Your task to perform on an android device: Open Android settings Image 0: 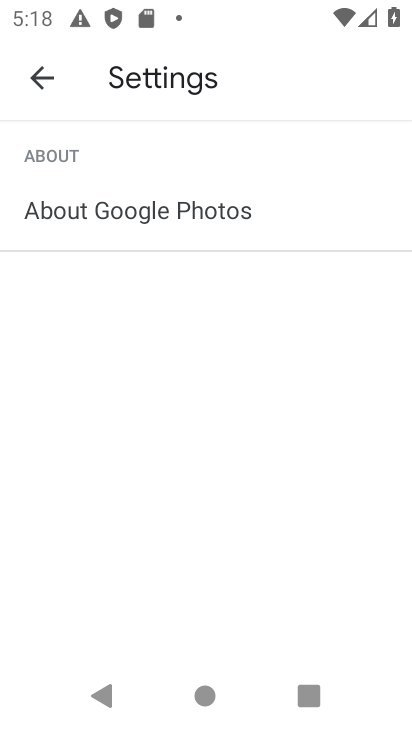
Step 0: click (33, 97)
Your task to perform on an android device: Open Android settings Image 1: 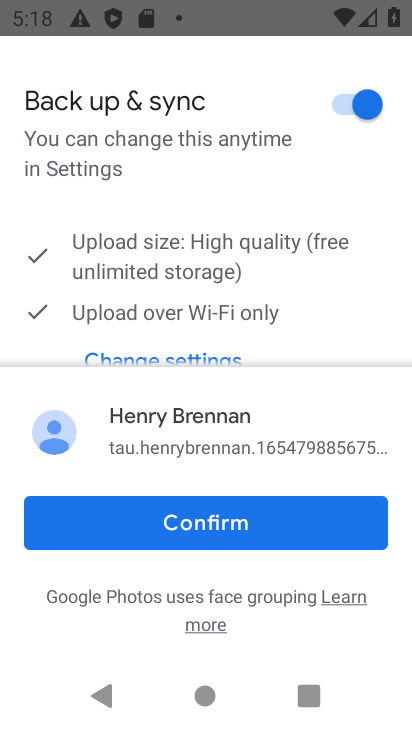
Step 1: click (226, 529)
Your task to perform on an android device: Open Android settings Image 2: 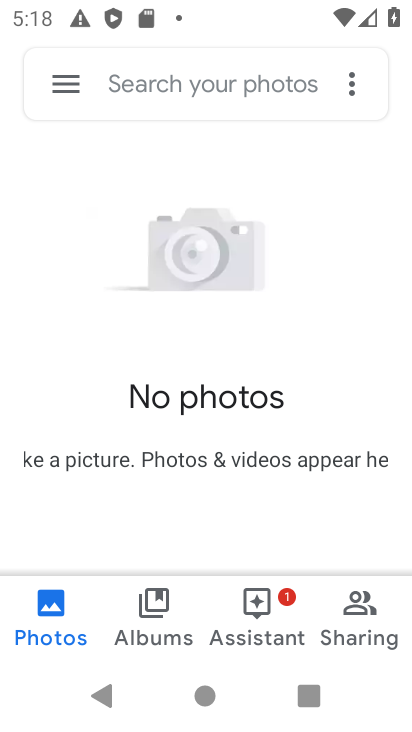
Step 2: press home button
Your task to perform on an android device: Open Android settings Image 3: 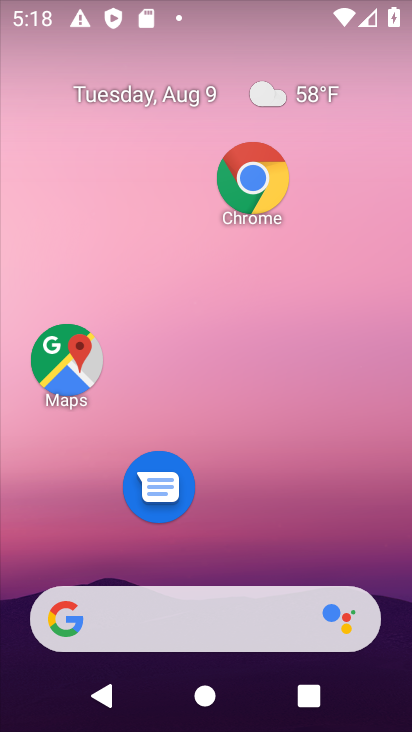
Step 3: drag from (268, 545) to (153, 24)
Your task to perform on an android device: Open Android settings Image 4: 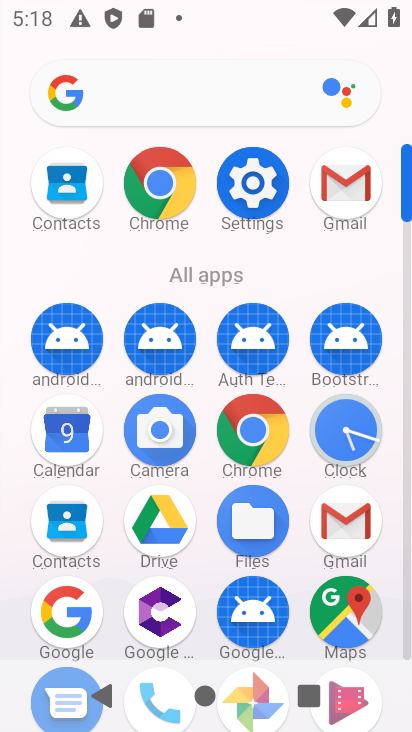
Step 4: click (243, 159)
Your task to perform on an android device: Open Android settings Image 5: 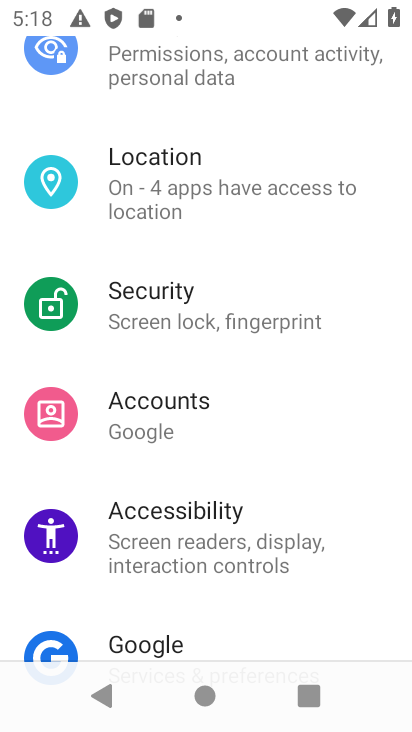
Step 5: drag from (272, 280) to (225, 670)
Your task to perform on an android device: Open Android settings Image 6: 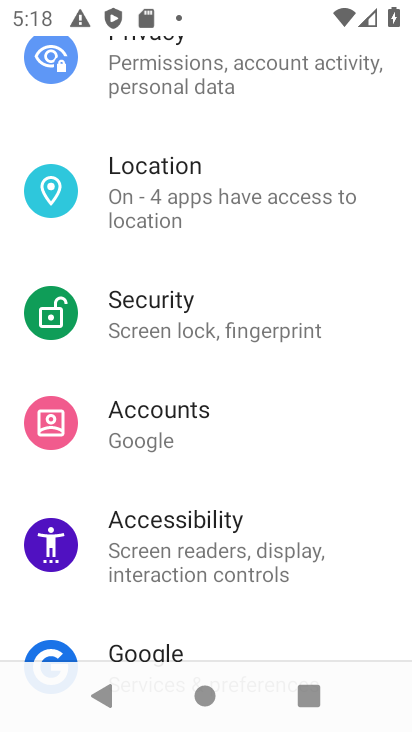
Step 6: drag from (250, 138) to (224, 620)
Your task to perform on an android device: Open Android settings Image 7: 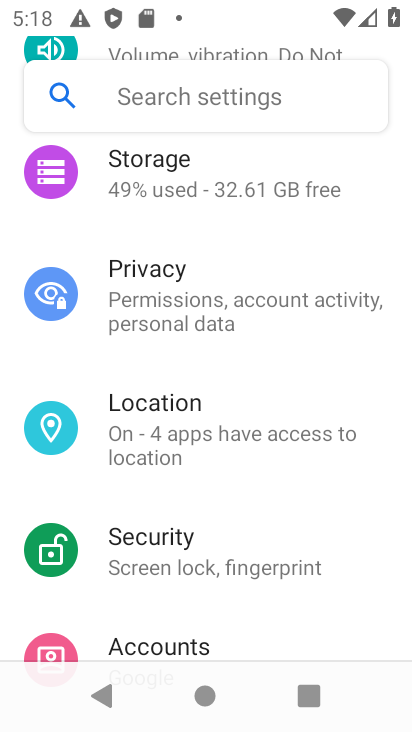
Step 7: click (251, 101)
Your task to perform on an android device: Open Android settings Image 8: 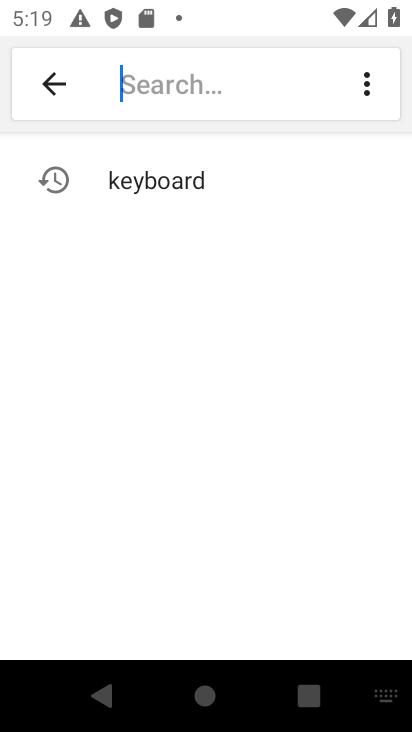
Step 8: type "android setting"
Your task to perform on an android device: Open Android settings Image 9: 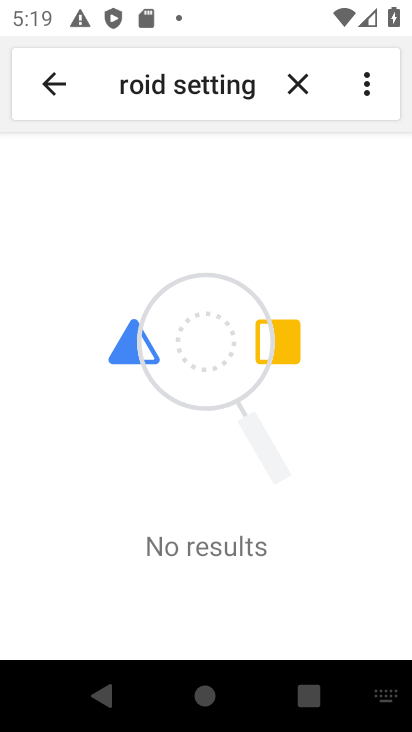
Step 9: click (295, 88)
Your task to perform on an android device: Open Android settings Image 10: 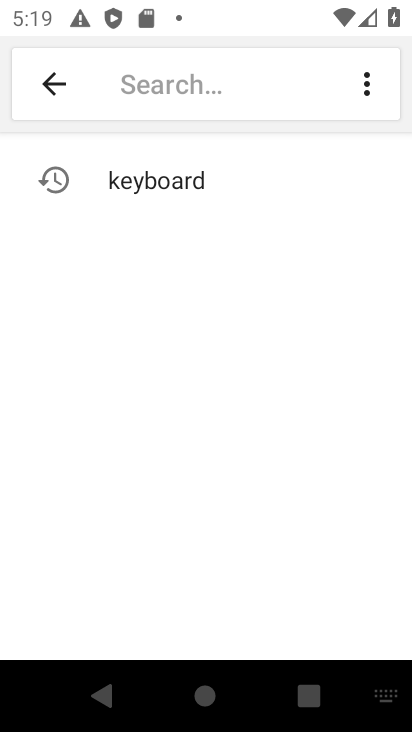
Step 10: type "android"
Your task to perform on an android device: Open Android settings Image 11: 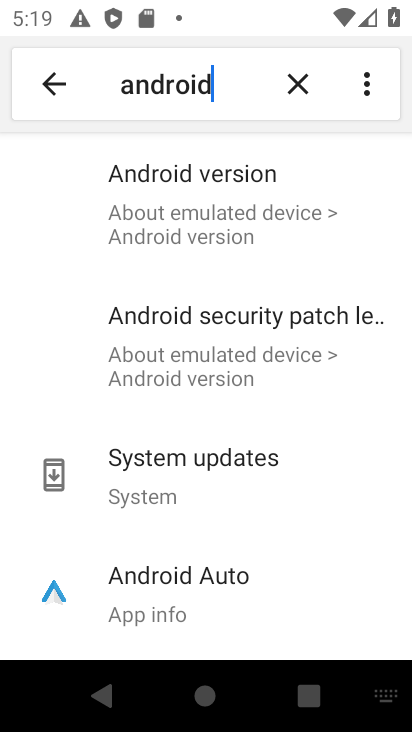
Step 11: click (188, 456)
Your task to perform on an android device: Open Android settings Image 12: 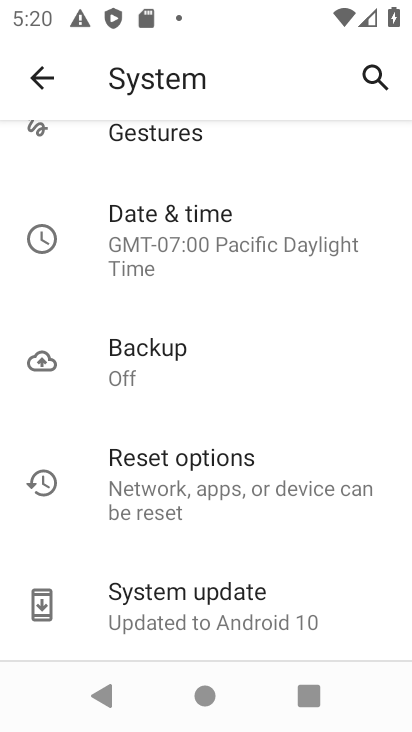
Step 12: task complete